Your task to perform on an android device: delete a single message in the gmail app Image 0: 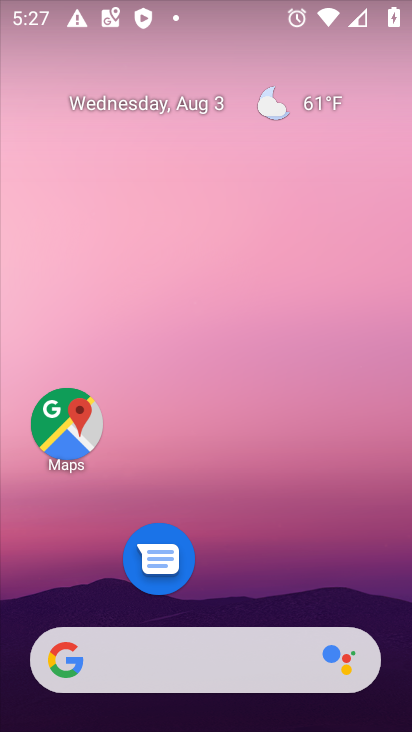
Step 0: drag from (191, 596) to (210, 154)
Your task to perform on an android device: delete a single message in the gmail app Image 1: 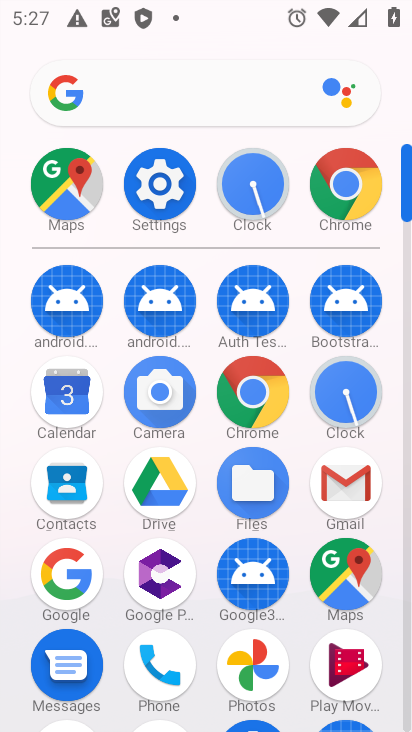
Step 1: click (337, 500)
Your task to perform on an android device: delete a single message in the gmail app Image 2: 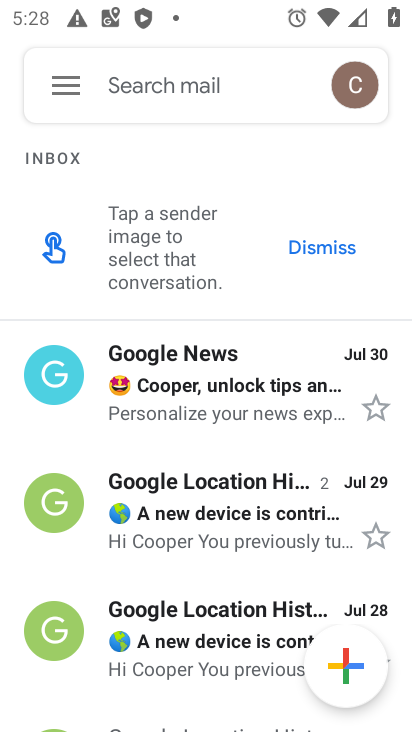
Step 2: click (175, 379)
Your task to perform on an android device: delete a single message in the gmail app Image 3: 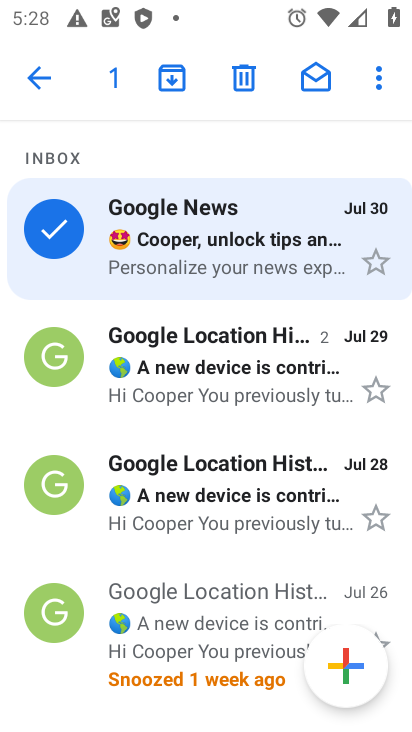
Step 3: click (241, 77)
Your task to perform on an android device: delete a single message in the gmail app Image 4: 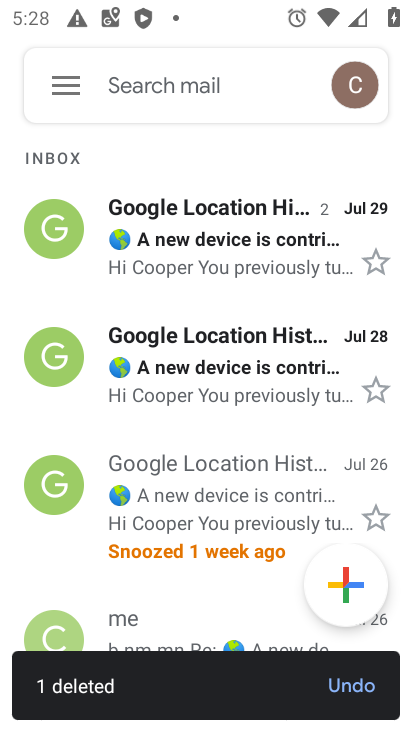
Step 4: task complete